Your task to perform on an android device: turn on bluetooth scan Image 0: 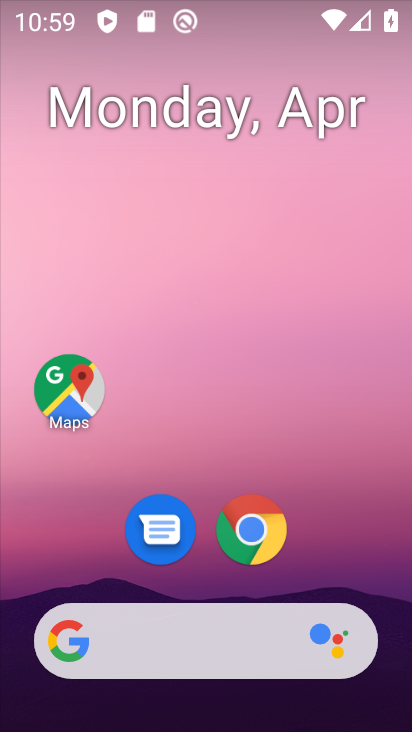
Step 0: drag from (373, 591) to (213, 25)
Your task to perform on an android device: turn on bluetooth scan Image 1: 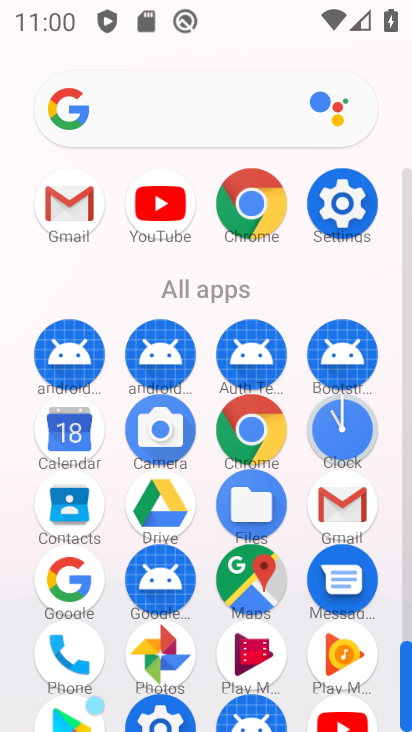
Step 1: click (340, 190)
Your task to perform on an android device: turn on bluetooth scan Image 2: 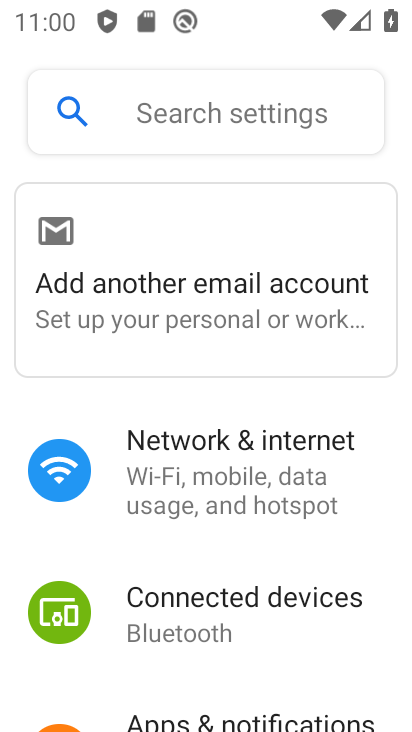
Step 2: drag from (196, 644) to (158, 67)
Your task to perform on an android device: turn on bluetooth scan Image 3: 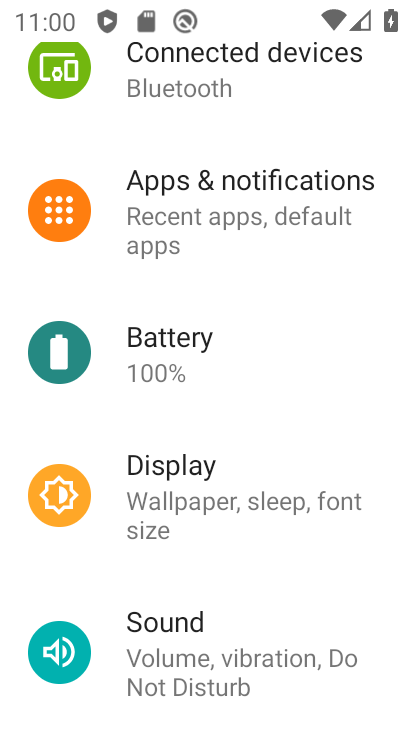
Step 3: drag from (169, 566) to (225, 158)
Your task to perform on an android device: turn on bluetooth scan Image 4: 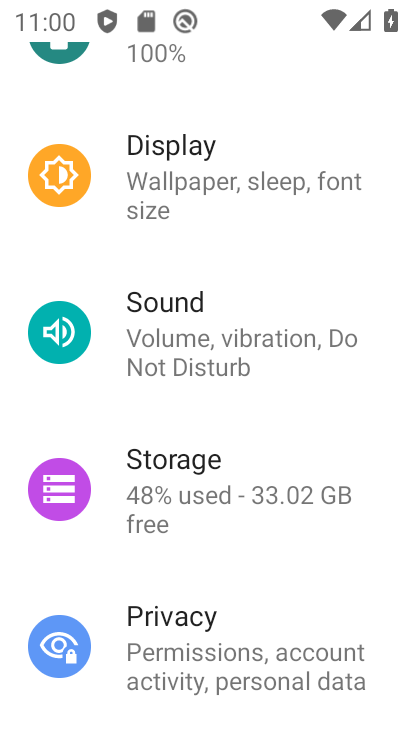
Step 4: drag from (141, 612) to (150, 136)
Your task to perform on an android device: turn on bluetooth scan Image 5: 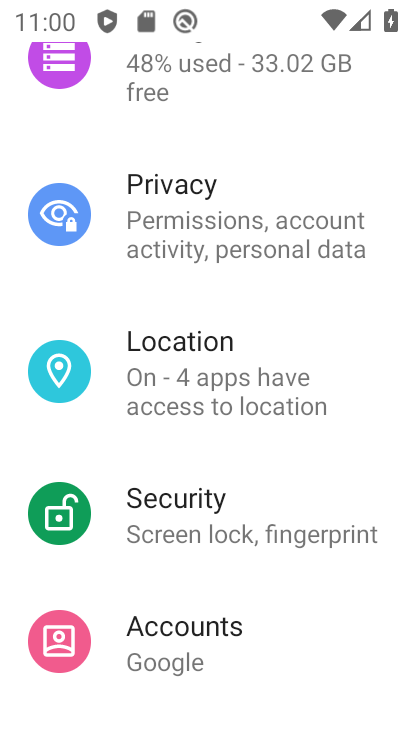
Step 5: click (204, 387)
Your task to perform on an android device: turn on bluetooth scan Image 6: 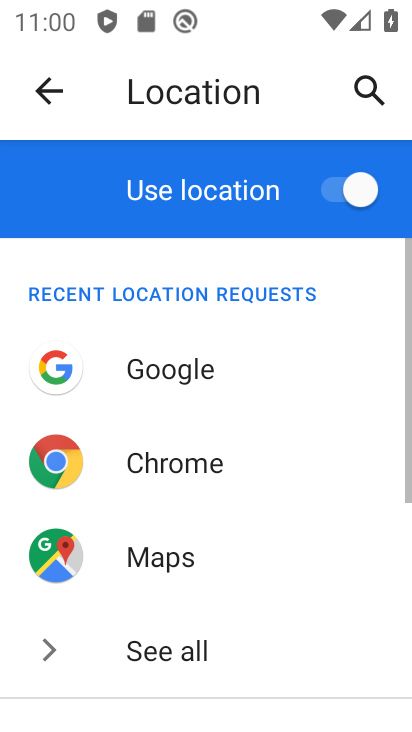
Step 6: drag from (179, 611) to (213, 123)
Your task to perform on an android device: turn on bluetooth scan Image 7: 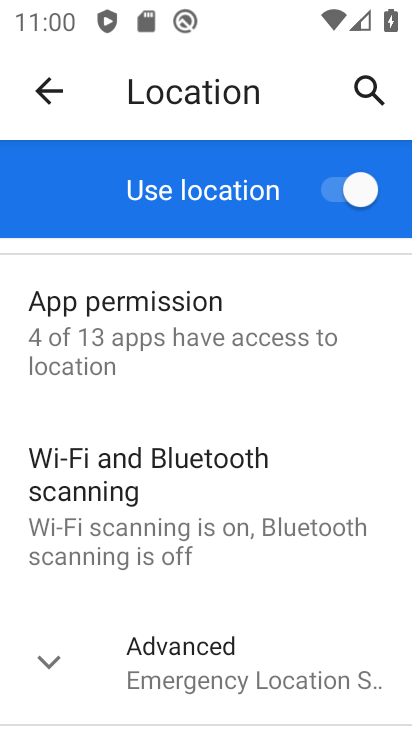
Step 7: click (178, 455)
Your task to perform on an android device: turn on bluetooth scan Image 8: 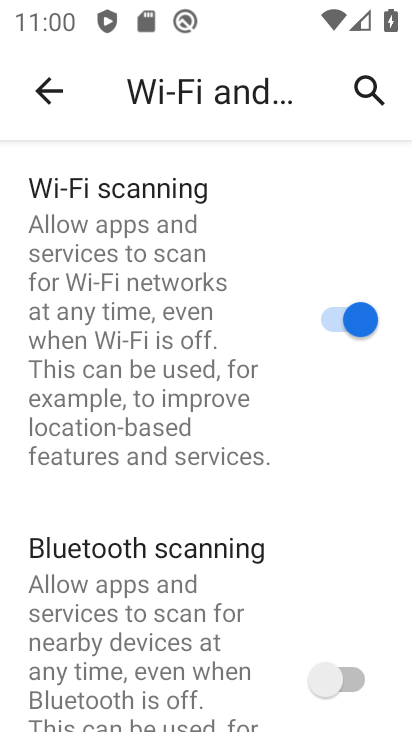
Step 8: click (291, 694)
Your task to perform on an android device: turn on bluetooth scan Image 9: 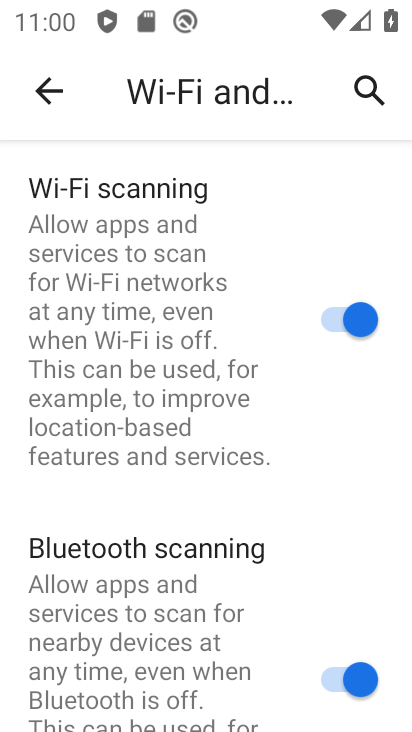
Step 9: task complete